Your task to perform on an android device: Check the news Image 0: 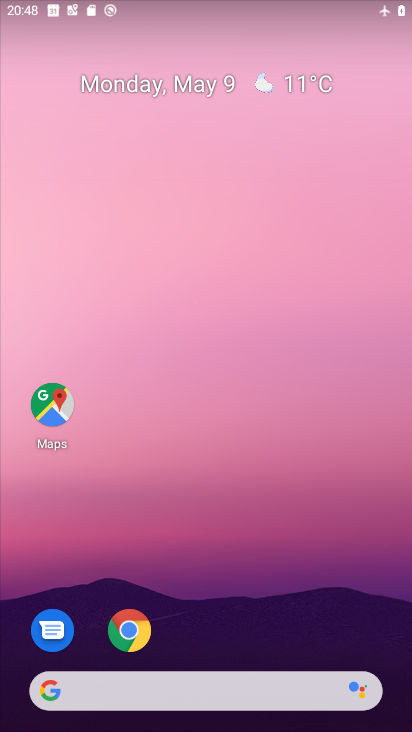
Step 0: click (136, 643)
Your task to perform on an android device: Check the news Image 1: 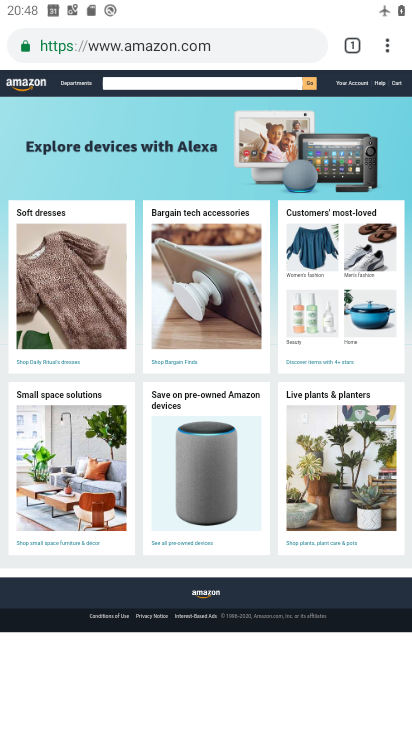
Step 1: click (171, 45)
Your task to perform on an android device: Check the news Image 2: 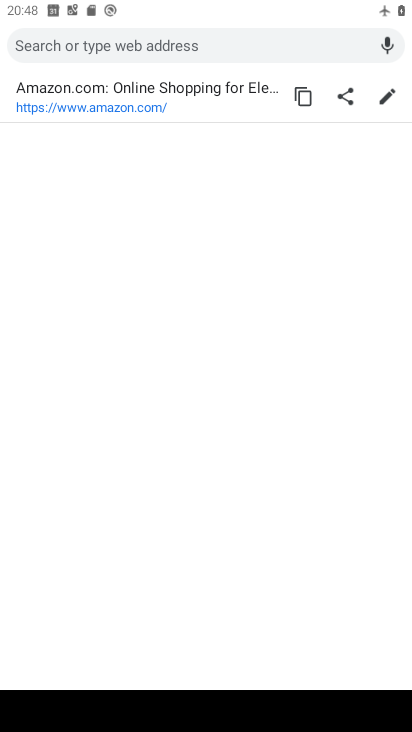
Step 2: type "news"
Your task to perform on an android device: Check the news Image 3: 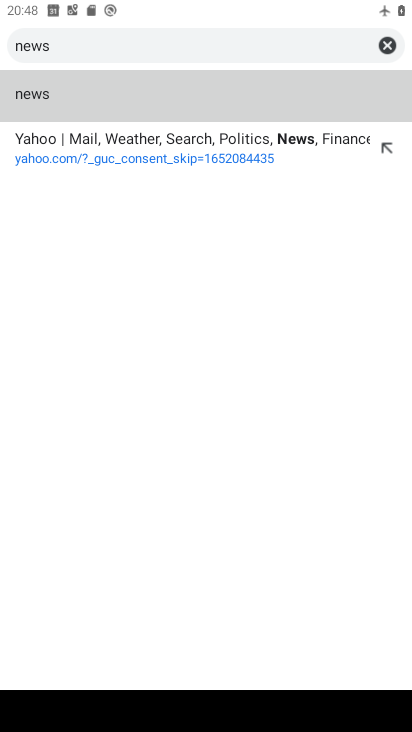
Step 3: click (34, 98)
Your task to perform on an android device: Check the news Image 4: 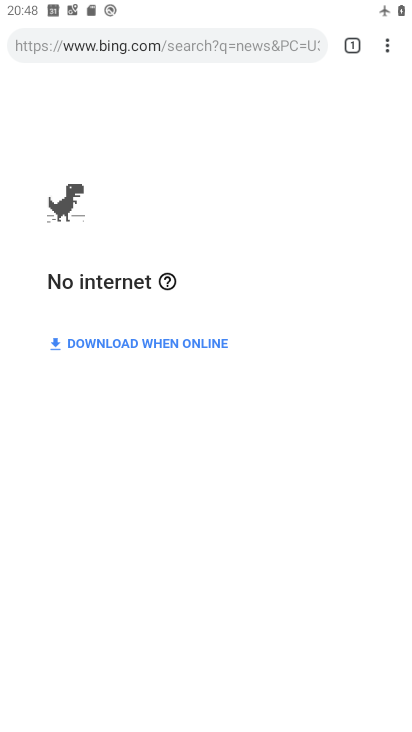
Step 4: task complete